Your task to perform on an android device: Check the news Image 0: 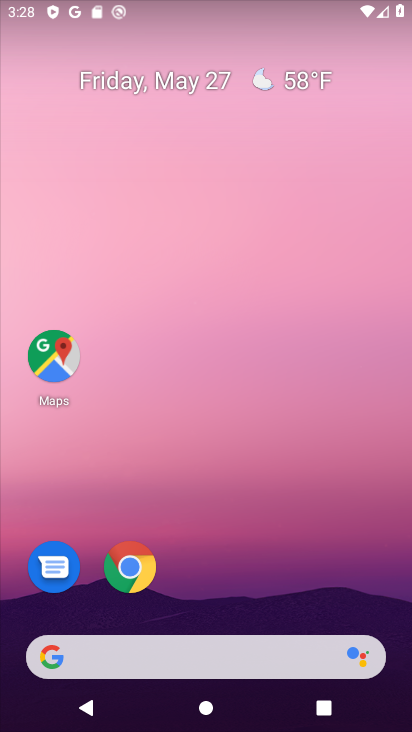
Step 0: press home button
Your task to perform on an android device: Check the news Image 1: 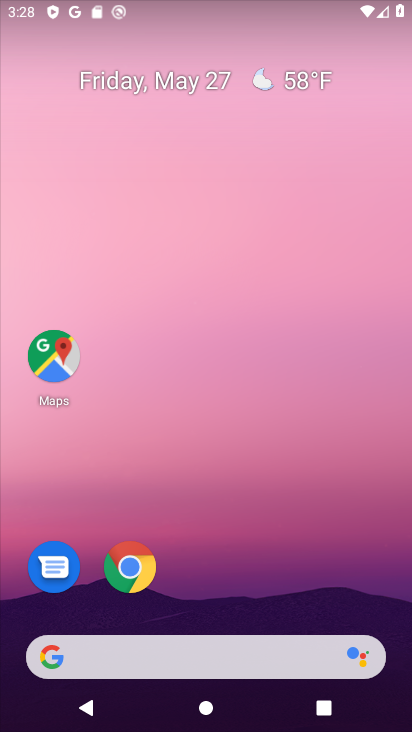
Step 1: task complete